Your task to perform on an android device: Go to internet settings Image 0: 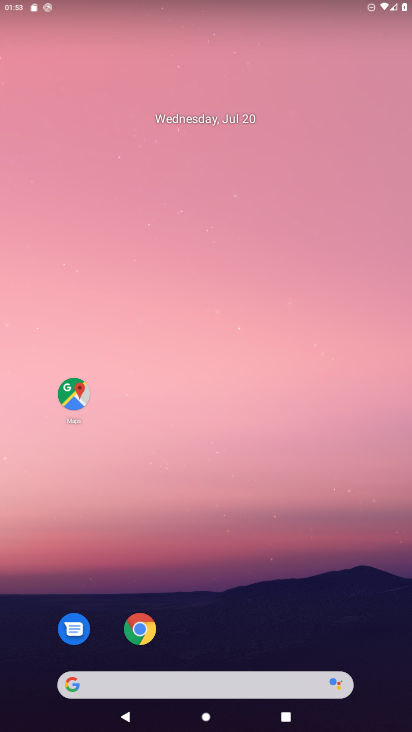
Step 0: drag from (181, 387) to (195, 154)
Your task to perform on an android device: Go to internet settings Image 1: 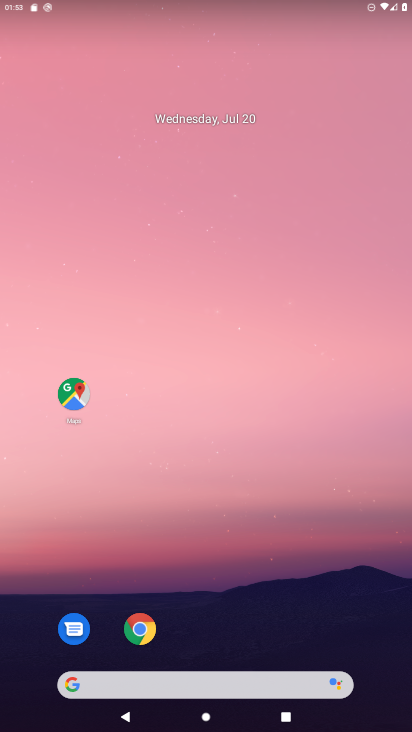
Step 1: drag from (234, 368) to (226, 72)
Your task to perform on an android device: Go to internet settings Image 2: 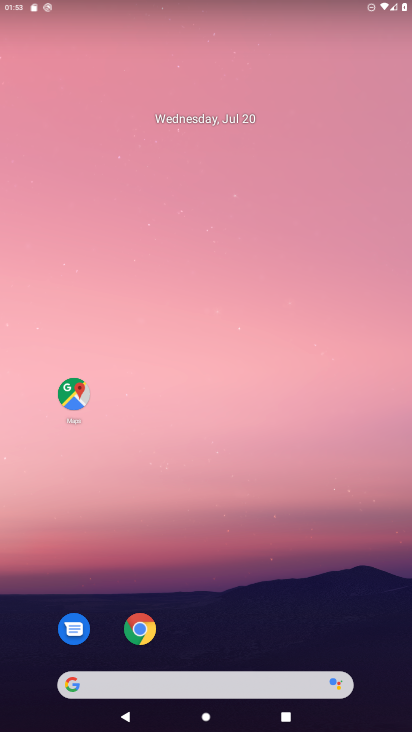
Step 2: drag from (212, 454) to (215, 77)
Your task to perform on an android device: Go to internet settings Image 3: 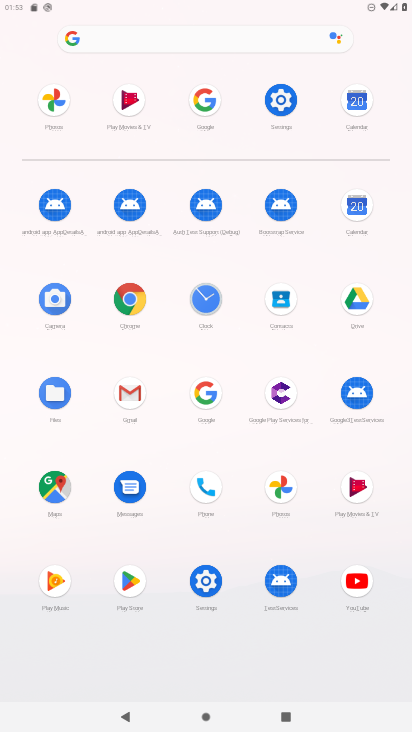
Step 3: click (274, 108)
Your task to perform on an android device: Go to internet settings Image 4: 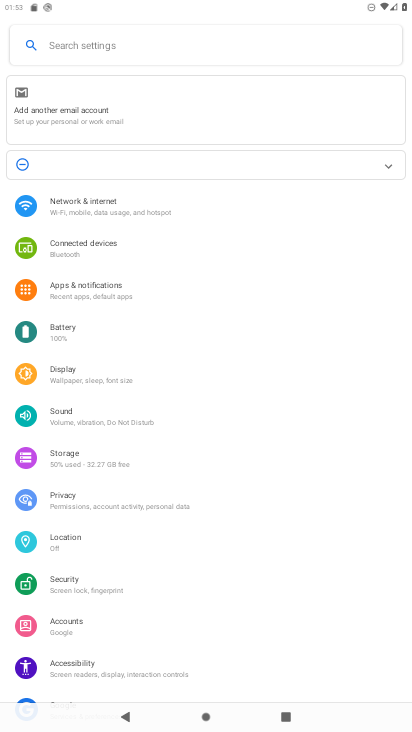
Step 4: click (101, 220)
Your task to perform on an android device: Go to internet settings Image 5: 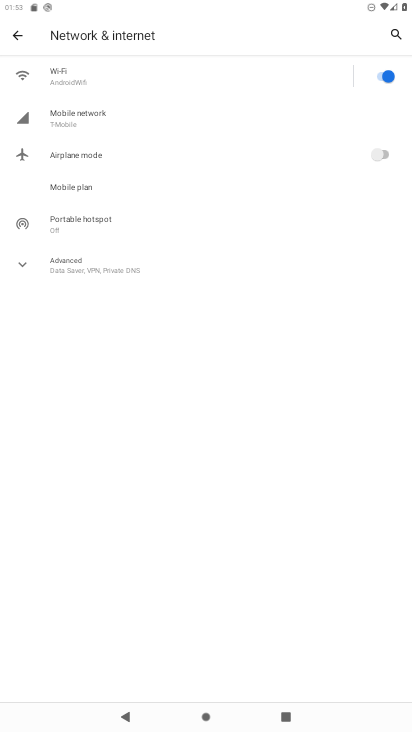
Step 5: task complete